Your task to perform on an android device: Open calendar and show me the first week of next month Image 0: 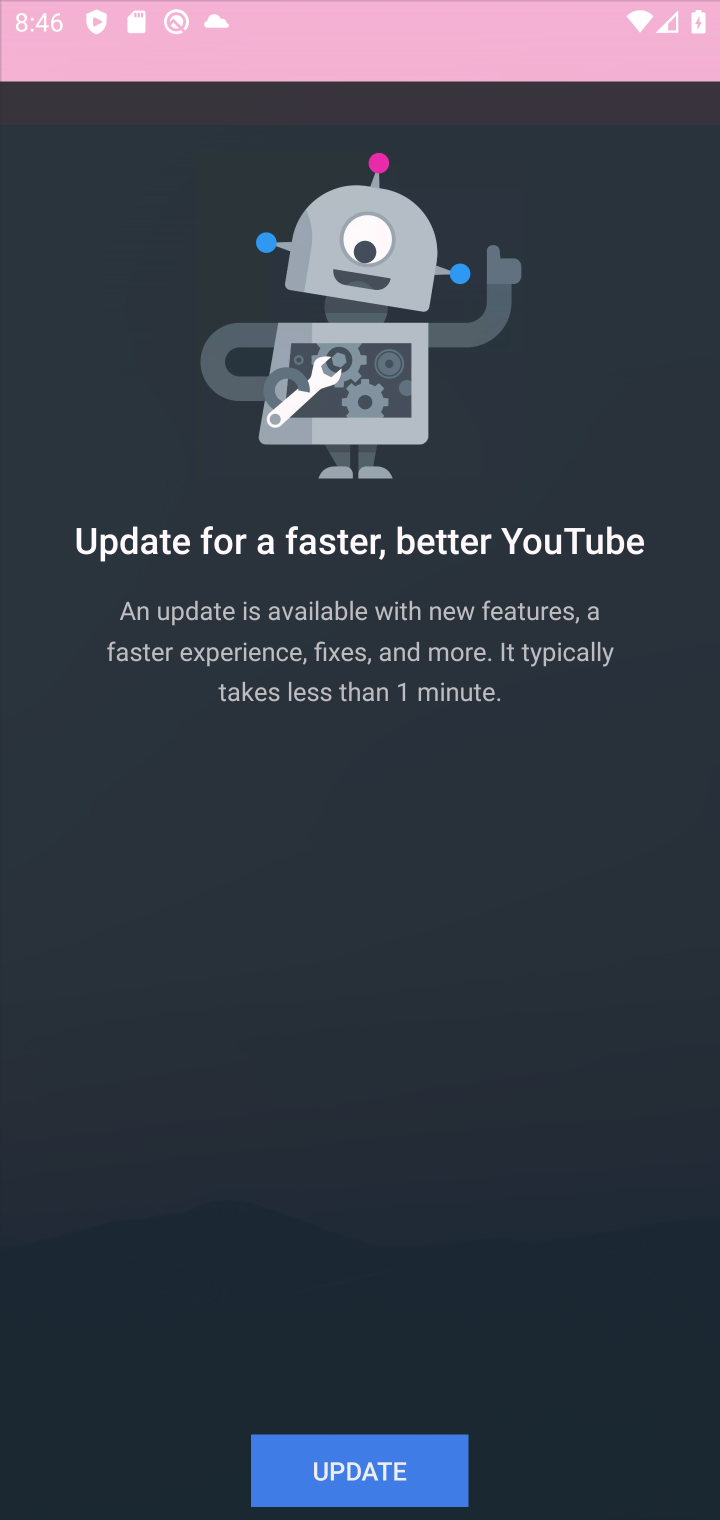
Step 0: press home button
Your task to perform on an android device: Open calendar and show me the first week of next month Image 1: 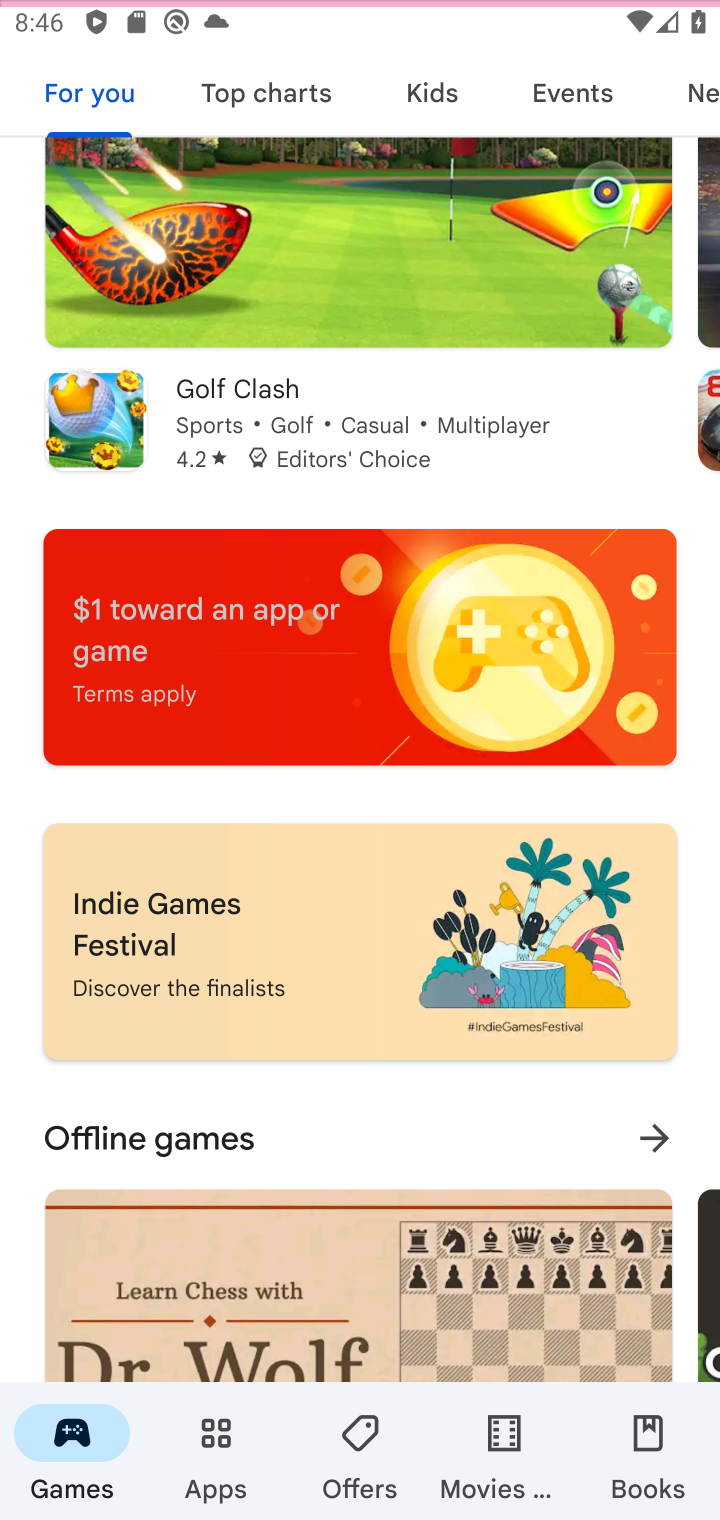
Step 1: press home button
Your task to perform on an android device: Open calendar and show me the first week of next month Image 2: 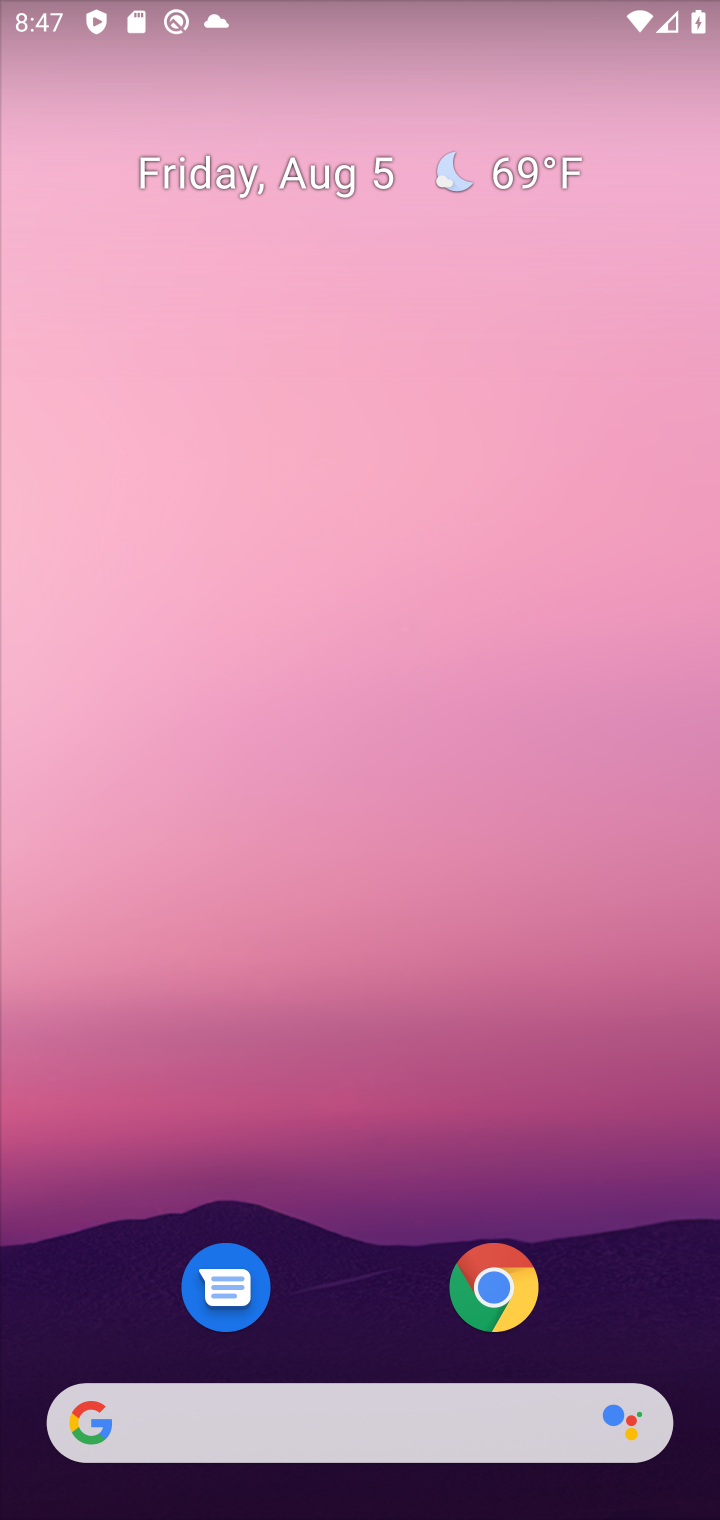
Step 2: drag from (367, 1254) to (392, 205)
Your task to perform on an android device: Open calendar and show me the first week of next month Image 3: 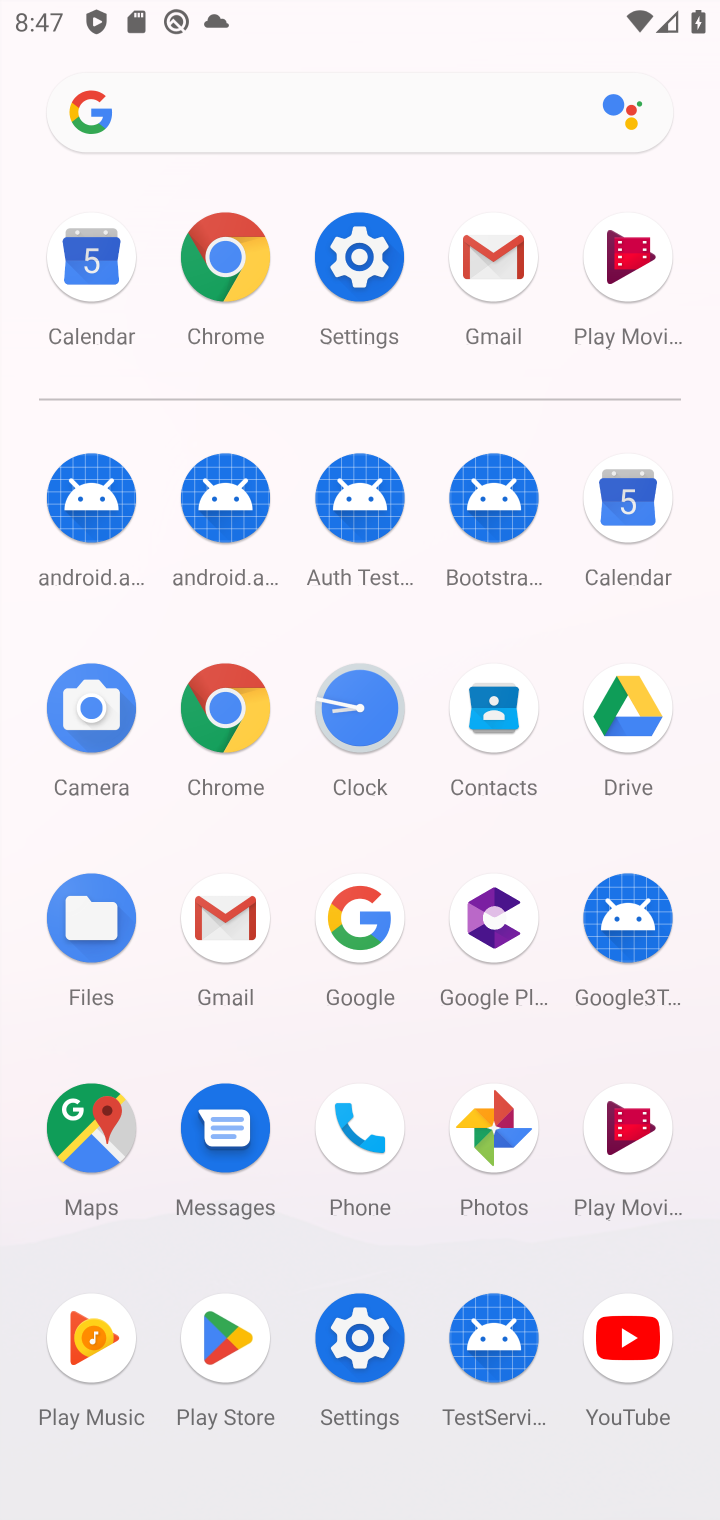
Step 3: click (630, 506)
Your task to perform on an android device: Open calendar and show me the first week of next month Image 4: 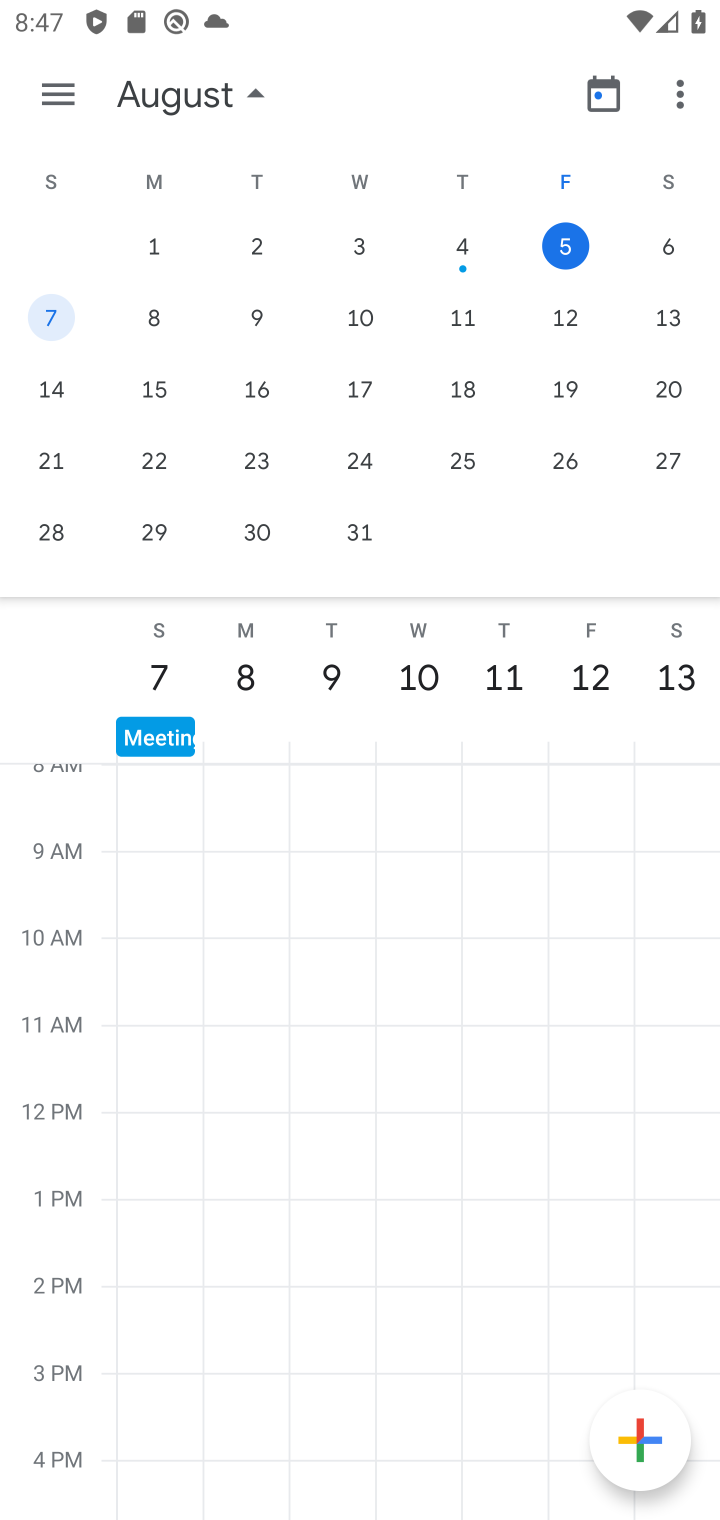
Step 4: drag from (608, 418) to (374, 381)
Your task to perform on an android device: Open calendar and show me the first week of next month Image 5: 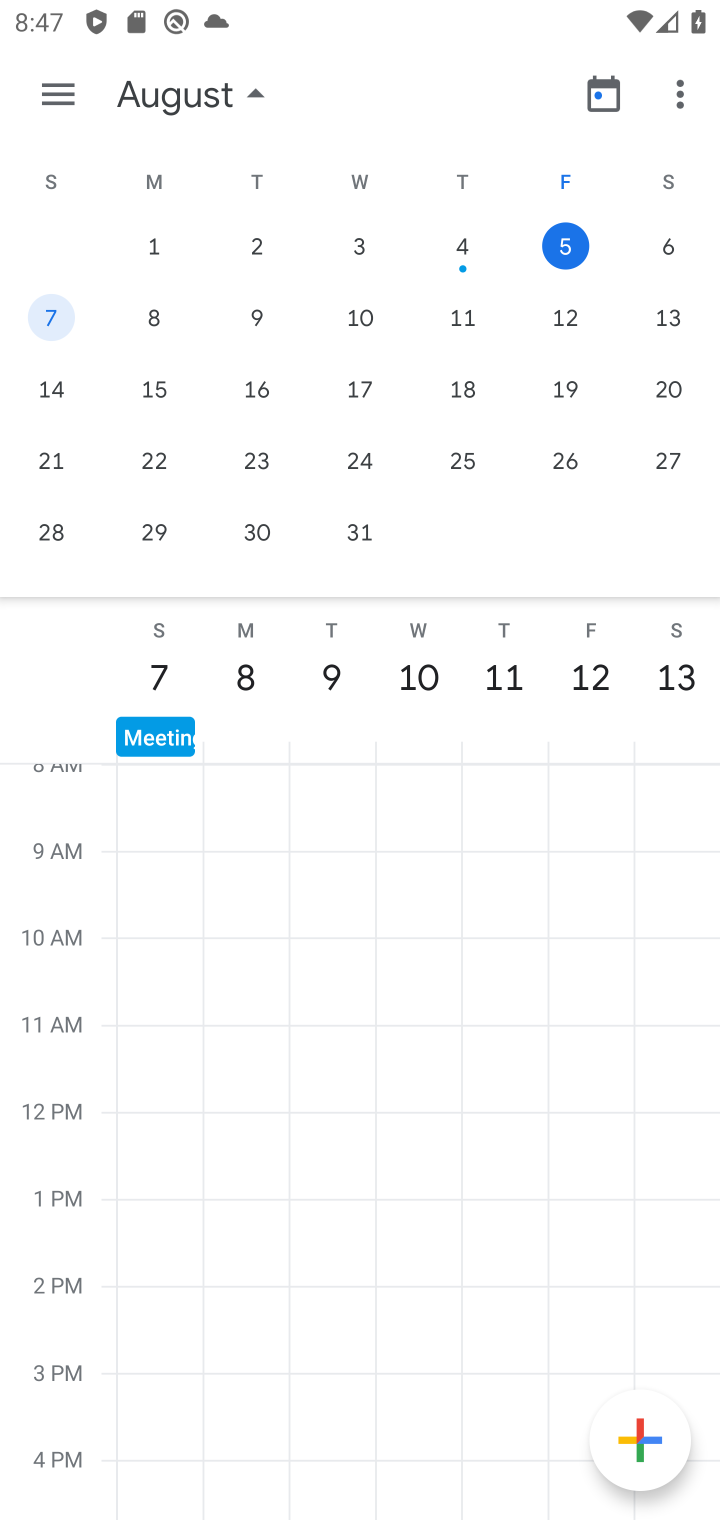
Step 5: drag from (630, 377) to (78, 373)
Your task to perform on an android device: Open calendar and show me the first week of next month Image 6: 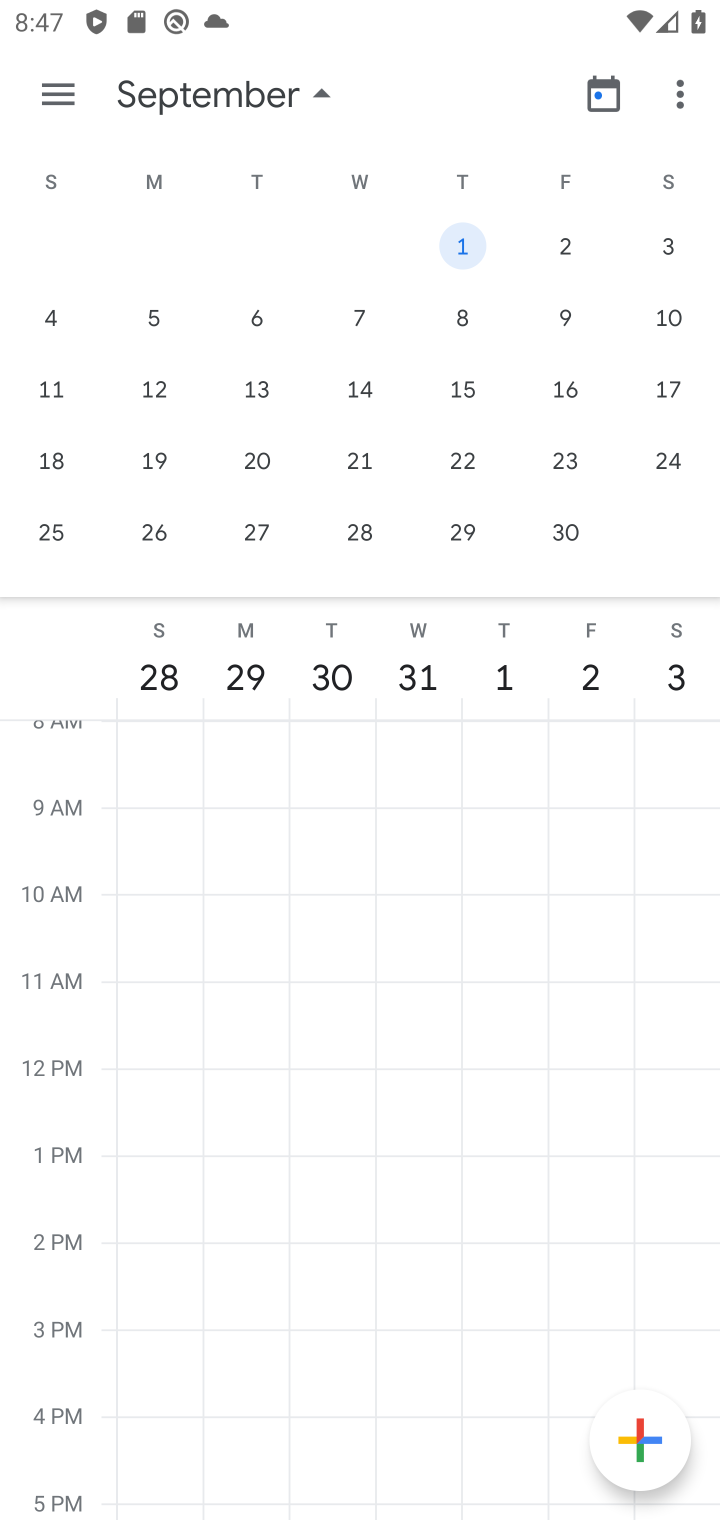
Step 6: click (153, 316)
Your task to perform on an android device: Open calendar and show me the first week of next month Image 7: 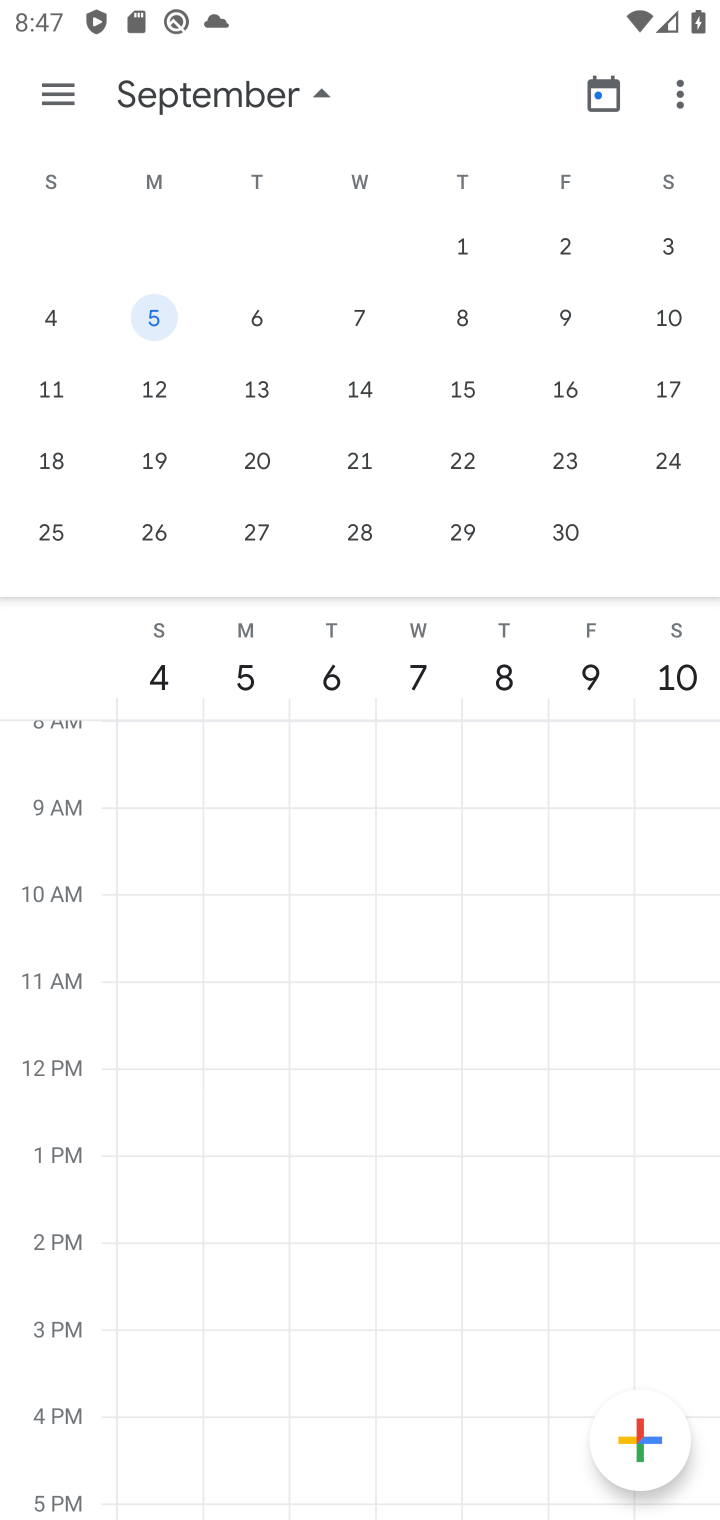
Step 7: click (63, 88)
Your task to perform on an android device: Open calendar and show me the first week of next month Image 8: 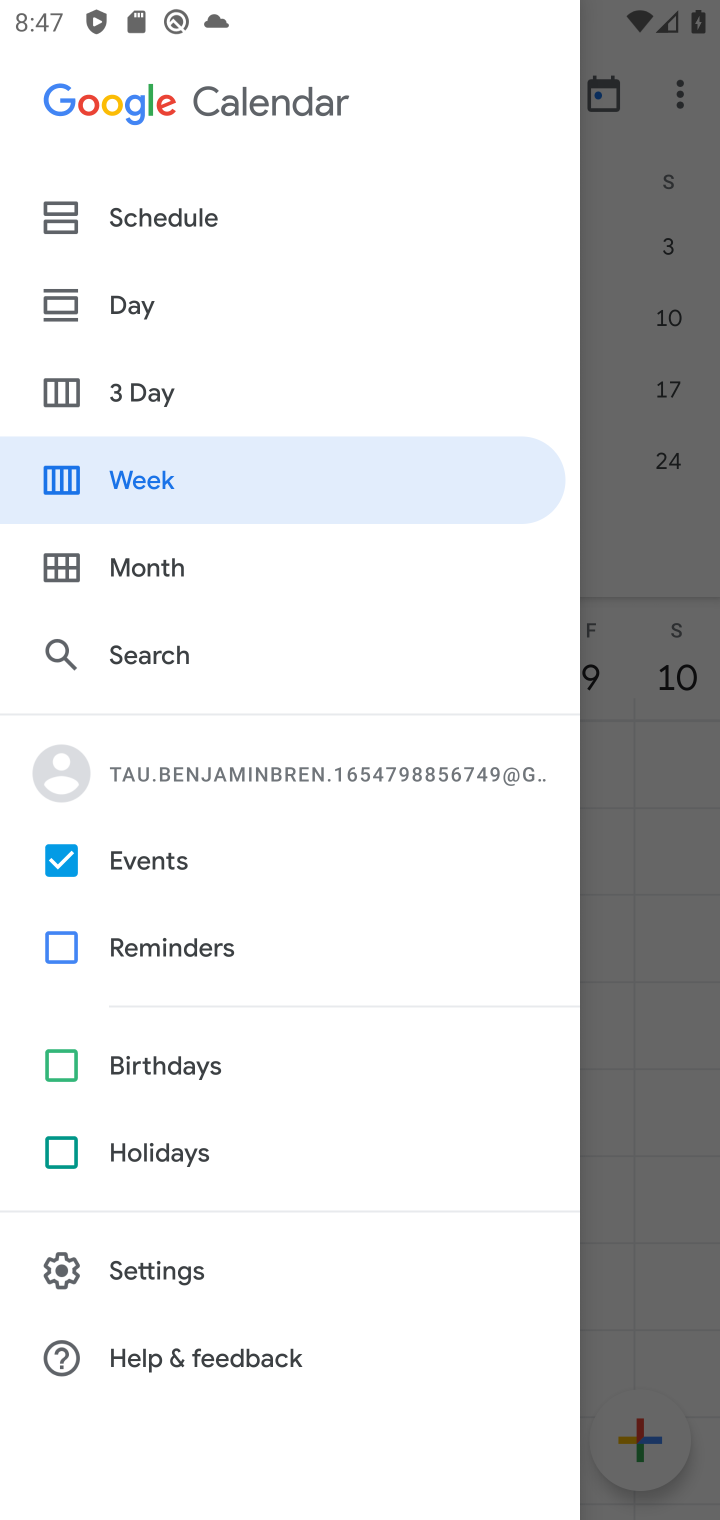
Step 8: click (137, 463)
Your task to perform on an android device: Open calendar and show me the first week of next month Image 9: 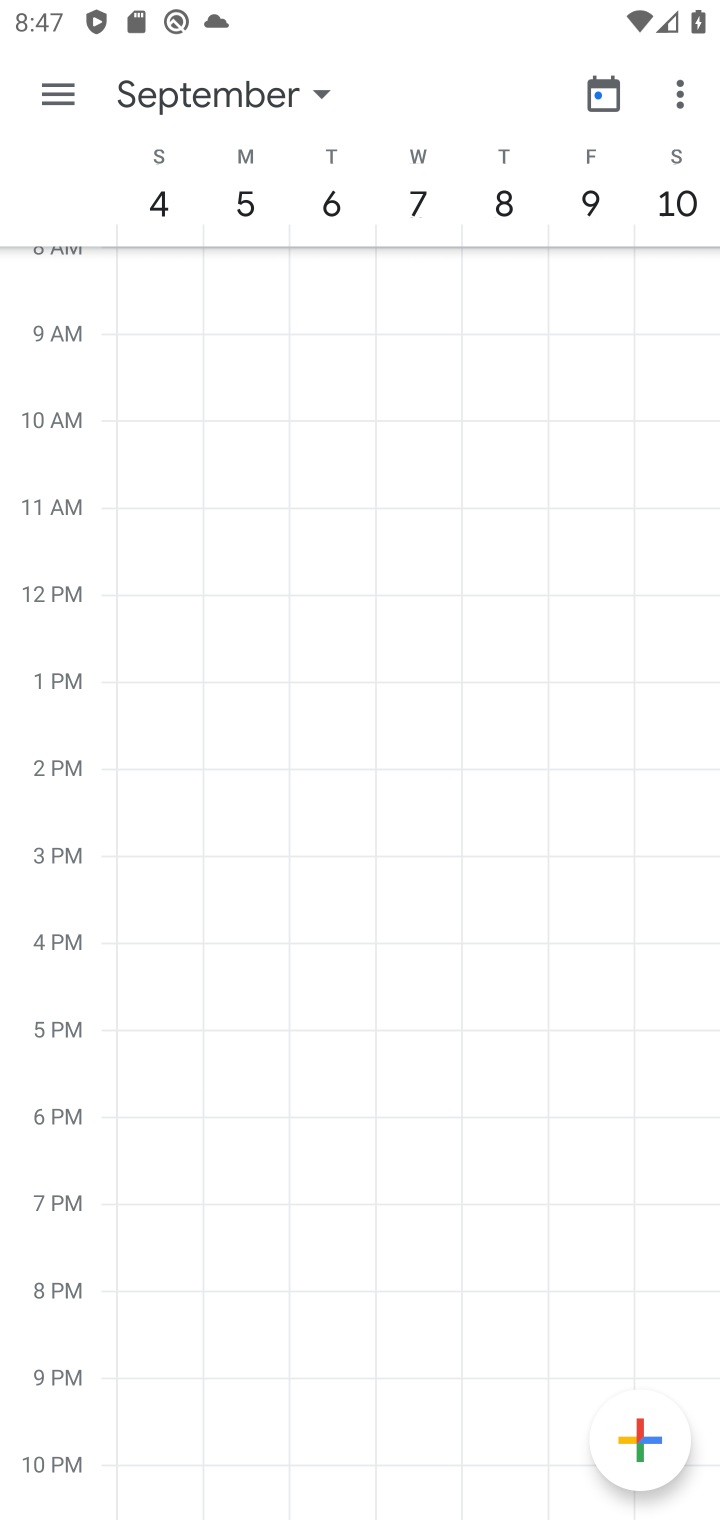
Step 9: task complete